Your task to perform on an android device: Search for Mexican restaurants on Maps Image 0: 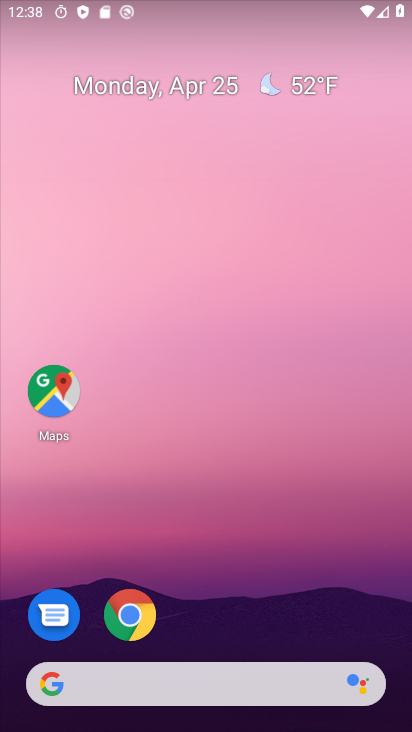
Step 0: drag from (237, 651) to (315, 19)
Your task to perform on an android device: Search for Mexican restaurants on Maps Image 1: 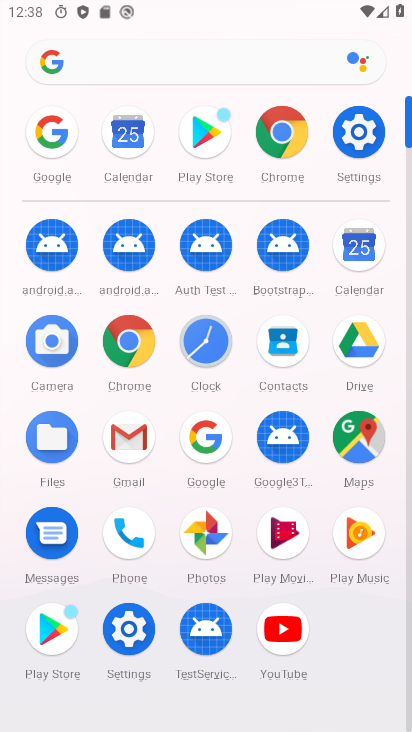
Step 1: click (346, 443)
Your task to perform on an android device: Search for Mexican restaurants on Maps Image 2: 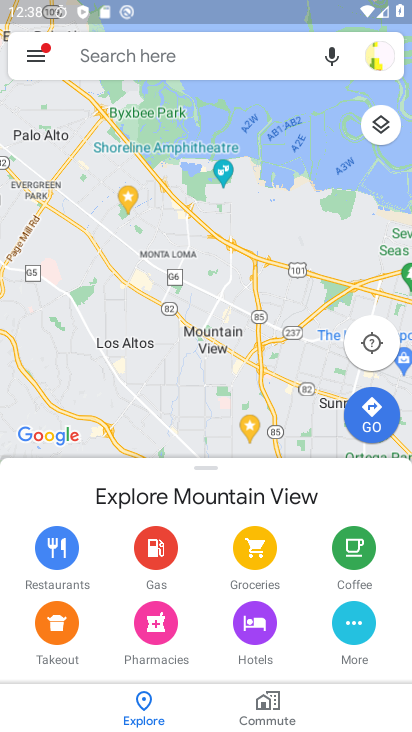
Step 2: click (140, 59)
Your task to perform on an android device: Search for Mexican restaurants on Maps Image 3: 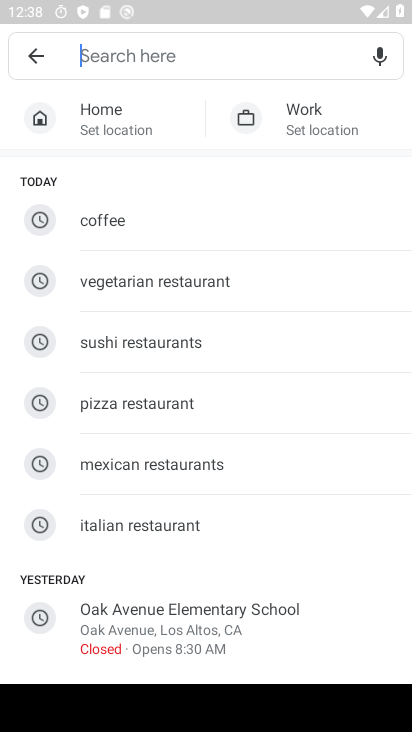
Step 3: click (158, 463)
Your task to perform on an android device: Search for Mexican restaurants on Maps Image 4: 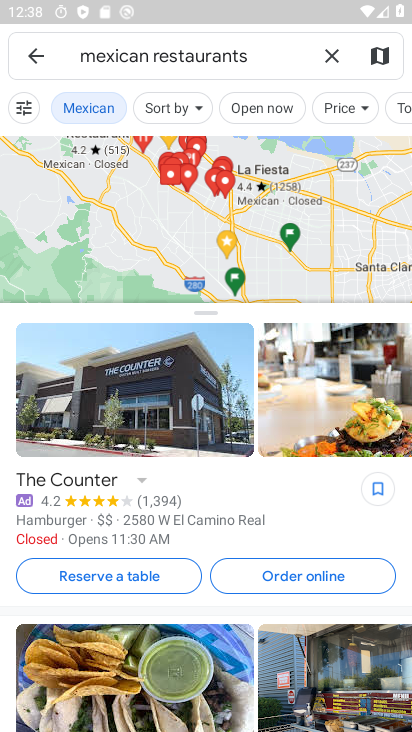
Step 4: task complete